Your task to perform on an android device: Open Chrome and go to the settings page Image 0: 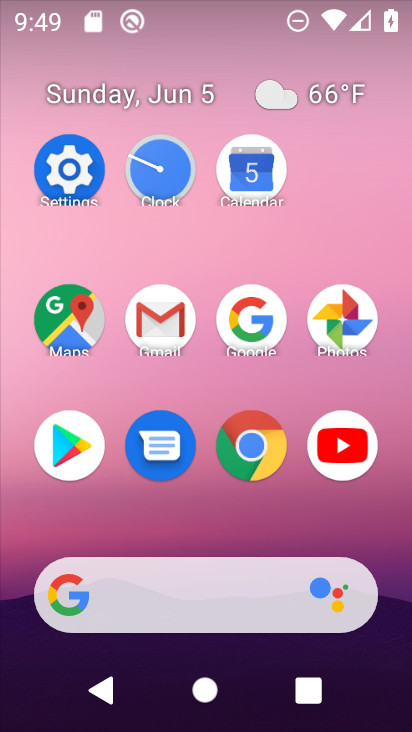
Step 0: click (230, 440)
Your task to perform on an android device: Open Chrome and go to the settings page Image 1: 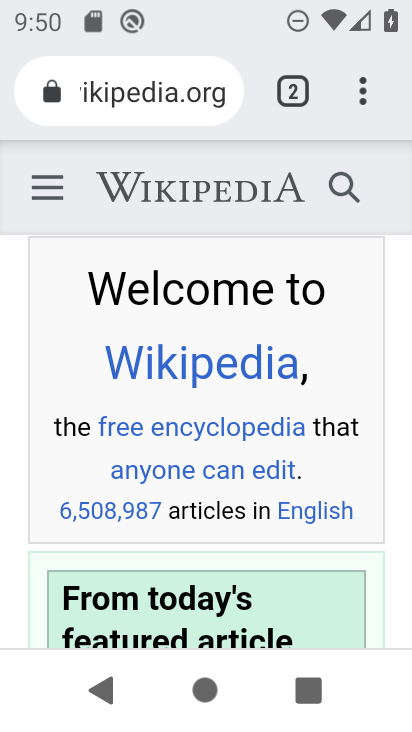
Step 1: click (344, 85)
Your task to perform on an android device: Open Chrome and go to the settings page Image 2: 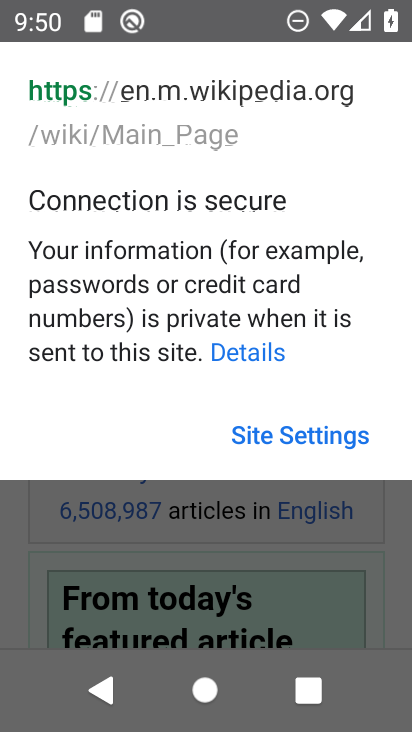
Step 2: click (391, 605)
Your task to perform on an android device: Open Chrome and go to the settings page Image 3: 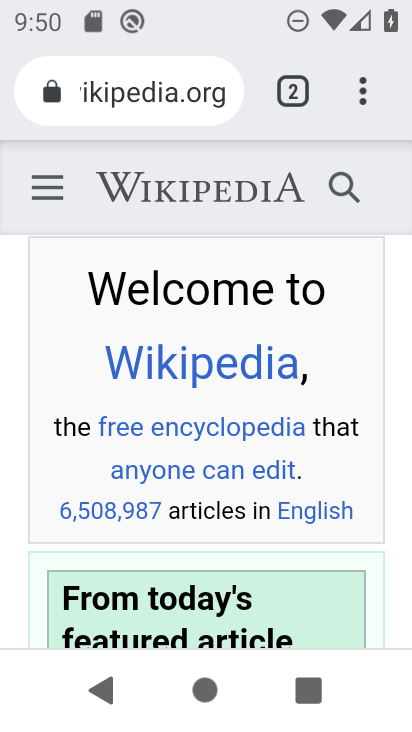
Step 3: click (353, 72)
Your task to perform on an android device: Open Chrome and go to the settings page Image 4: 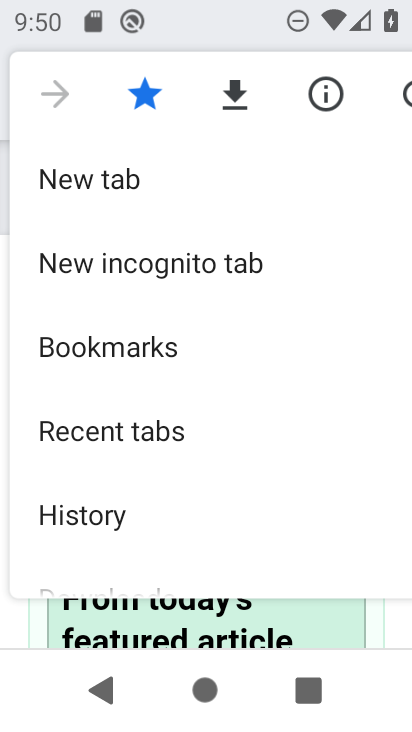
Step 4: drag from (233, 440) to (276, 129)
Your task to perform on an android device: Open Chrome and go to the settings page Image 5: 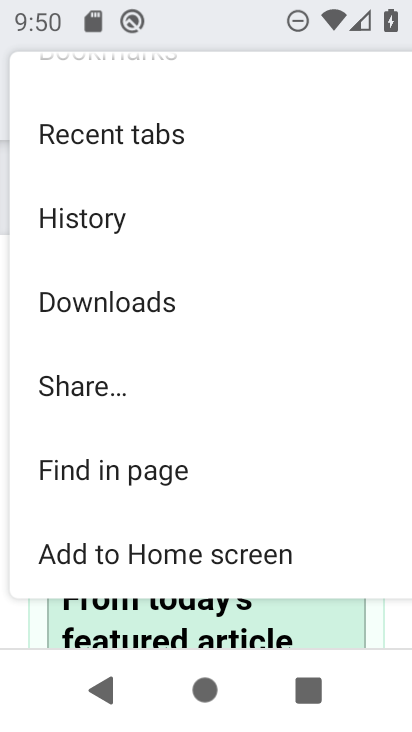
Step 5: drag from (168, 455) to (225, 137)
Your task to perform on an android device: Open Chrome and go to the settings page Image 6: 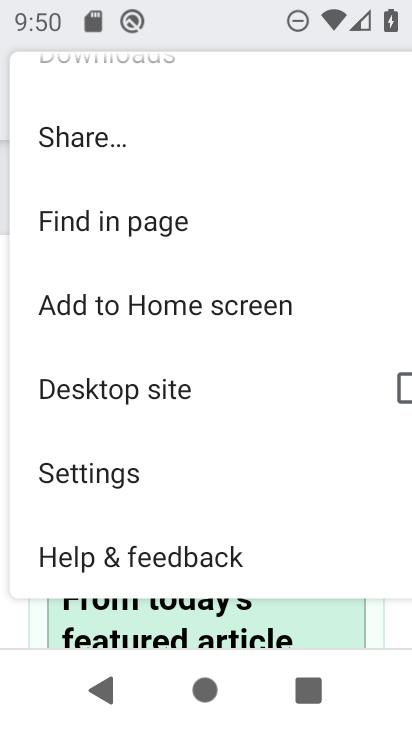
Step 6: click (190, 466)
Your task to perform on an android device: Open Chrome and go to the settings page Image 7: 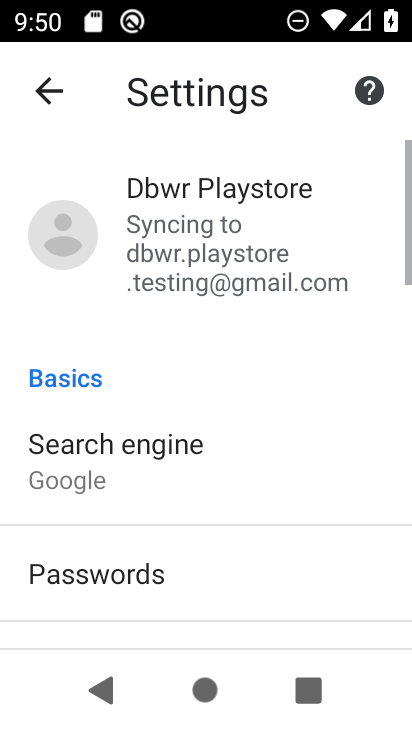
Step 7: task complete